Your task to perform on an android device: What is the recent news? Image 0: 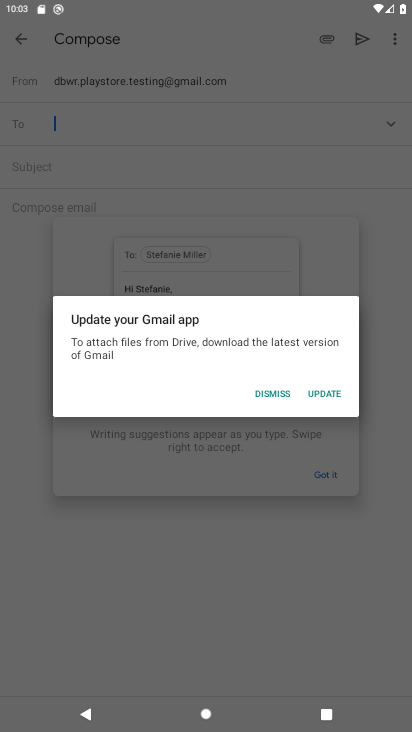
Step 0: press home button
Your task to perform on an android device: What is the recent news? Image 1: 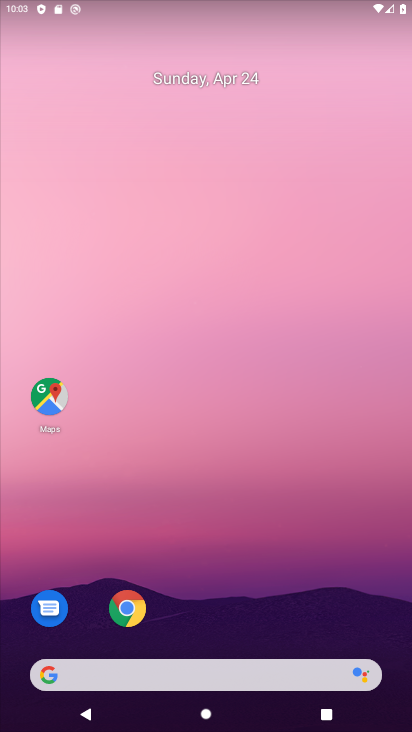
Step 1: drag from (162, 661) to (157, 233)
Your task to perform on an android device: What is the recent news? Image 2: 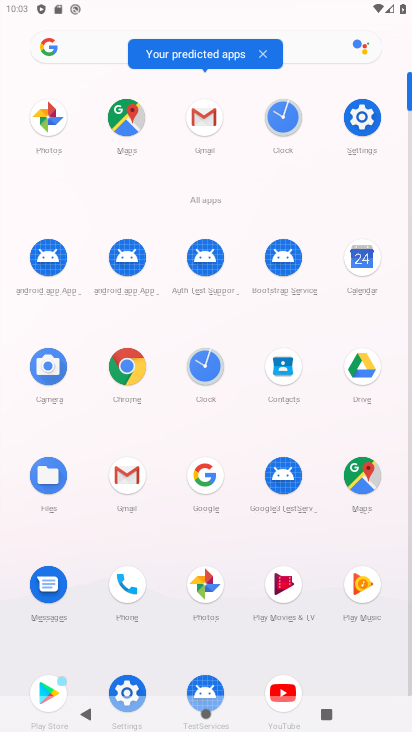
Step 2: click (107, 49)
Your task to perform on an android device: What is the recent news? Image 3: 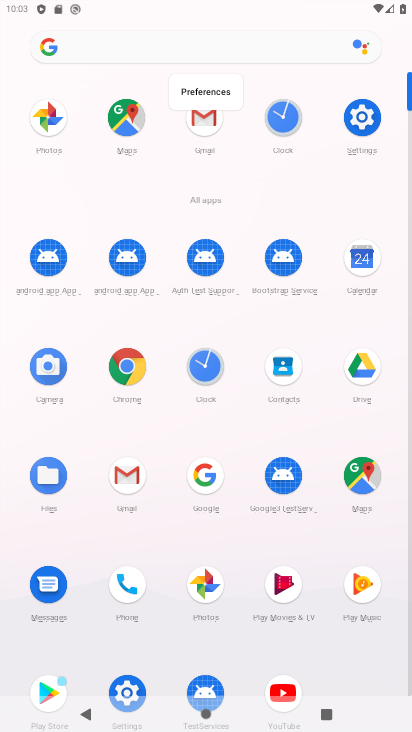
Step 3: click (93, 47)
Your task to perform on an android device: What is the recent news? Image 4: 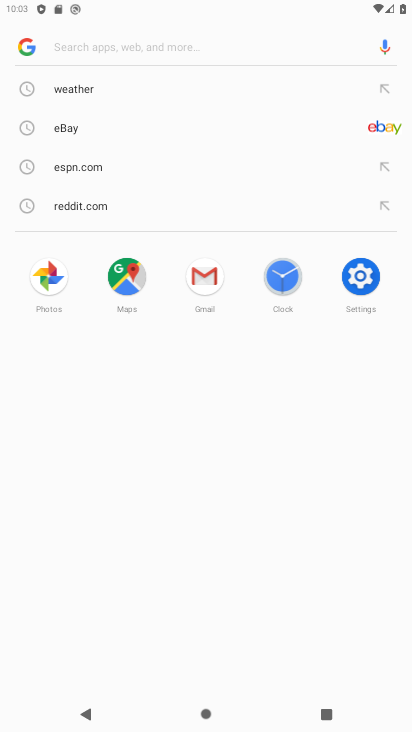
Step 4: click (381, 705)
Your task to perform on an android device: What is the recent news? Image 5: 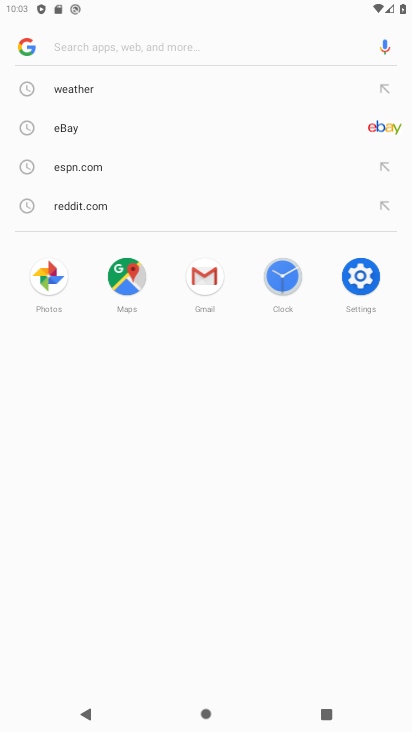
Step 5: drag from (397, 719) to (307, 457)
Your task to perform on an android device: What is the recent news? Image 6: 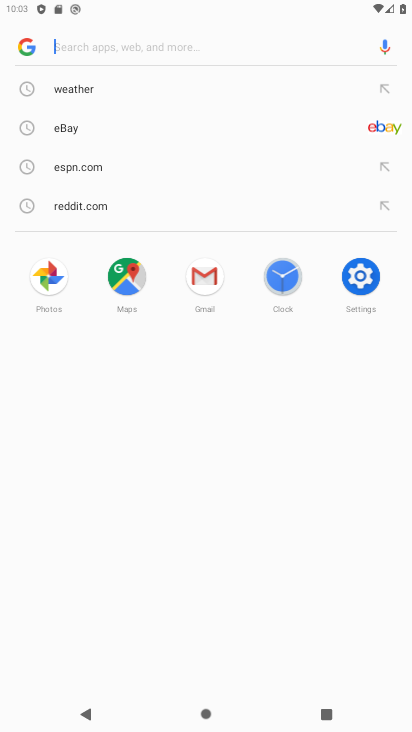
Step 6: drag from (376, 713) to (309, 470)
Your task to perform on an android device: What is the recent news? Image 7: 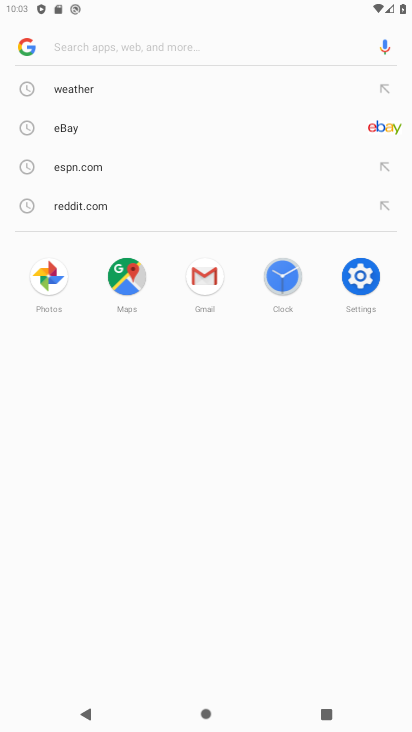
Step 7: click (87, 52)
Your task to perform on an android device: What is the recent news? Image 8: 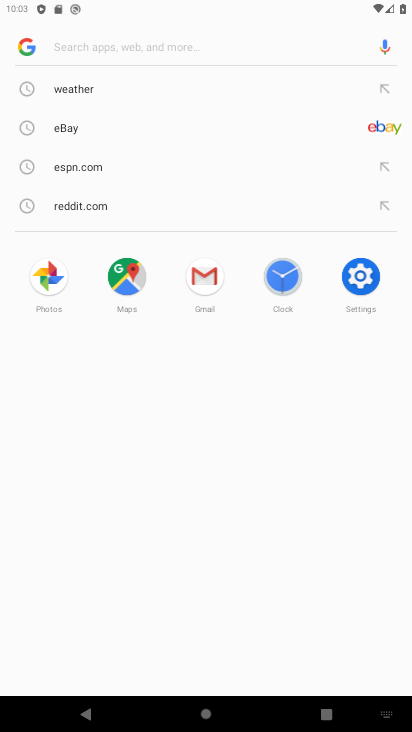
Step 8: click (394, 709)
Your task to perform on an android device: What is the recent news? Image 9: 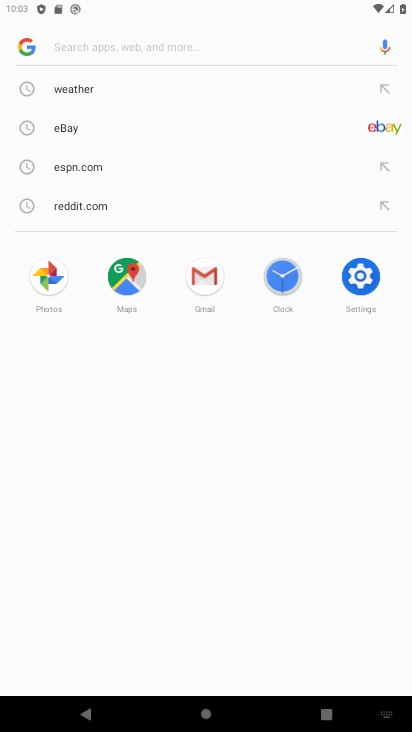
Step 9: click (393, 718)
Your task to perform on an android device: What is the recent news? Image 10: 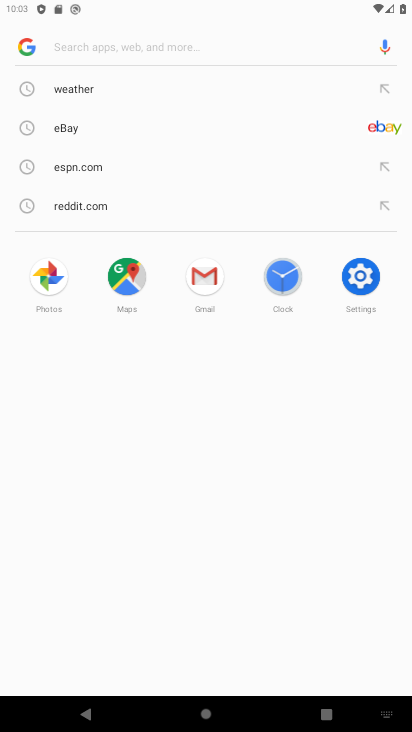
Step 10: drag from (393, 720) to (357, 608)
Your task to perform on an android device: What is the recent news? Image 11: 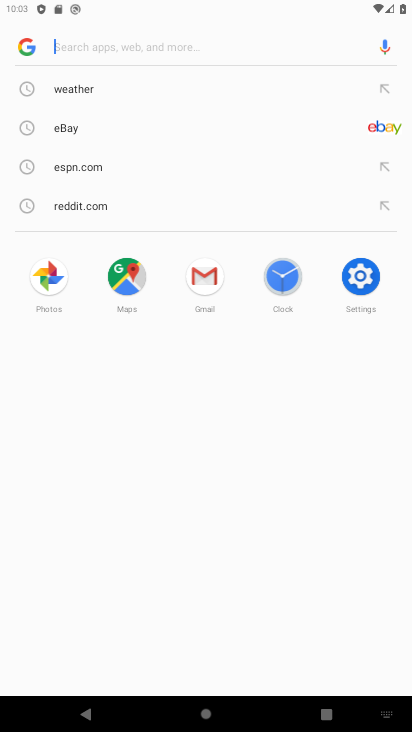
Step 11: click (392, 718)
Your task to perform on an android device: What is the recent news? Image 12: 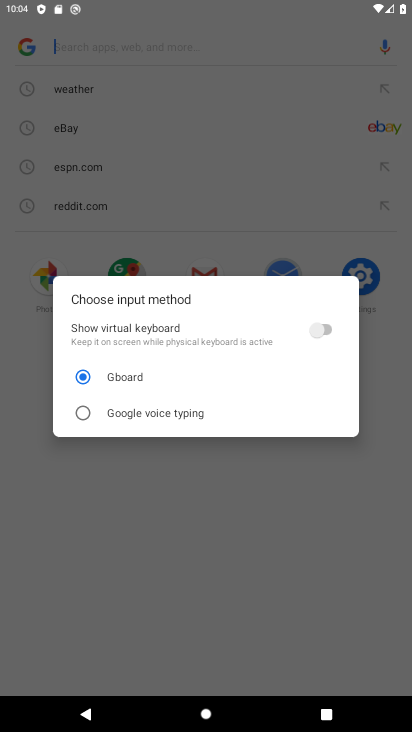
Step 12: click (334, 332)
Your task to perform on an android device: What is the recent news? Image 13: 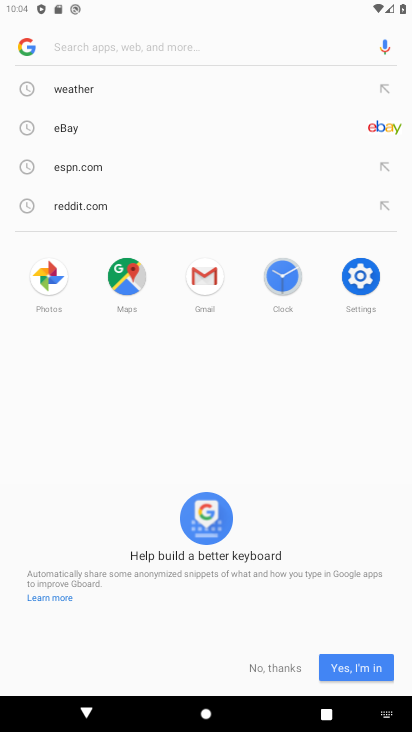
Step 13: click (275, 671)
Your task to perform on an android device: What is the recent news? Image 14: 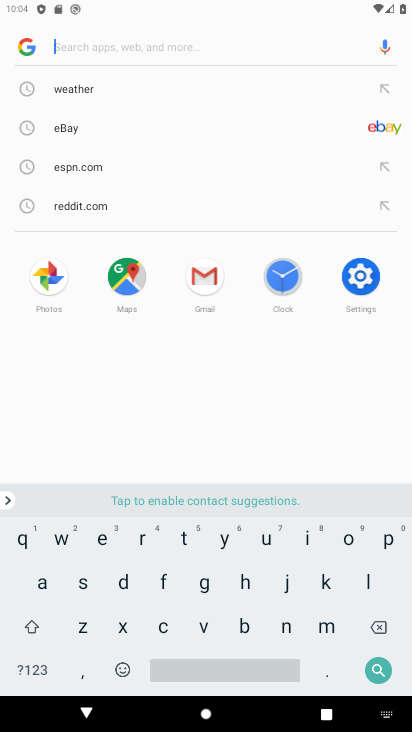
Step 14: click (137, 540)
Your task to perform on an android device: What is the recent news? Image 15: 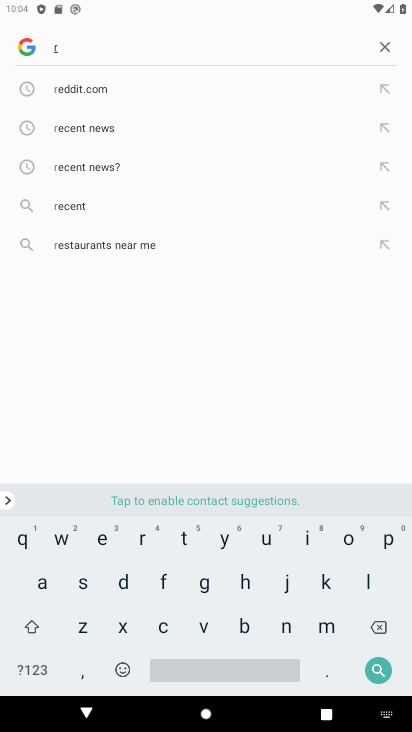
Step 15: click (112, 116)
Your task to perform on an android device: What is the recent news? Image 16: 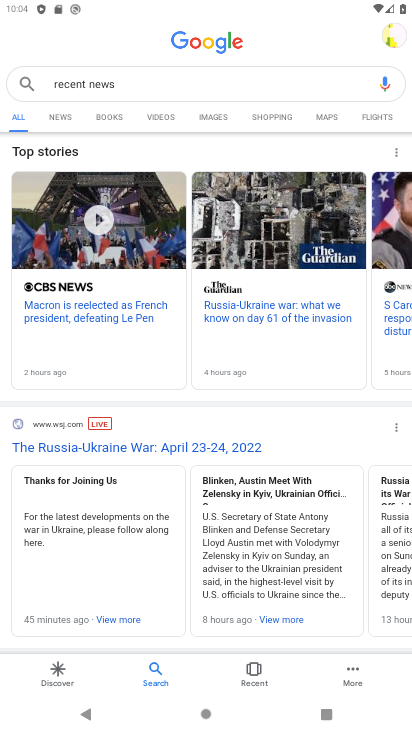
Step 16: task complete